Your task to perform on an android device: change the upload size in google photos Image 0: 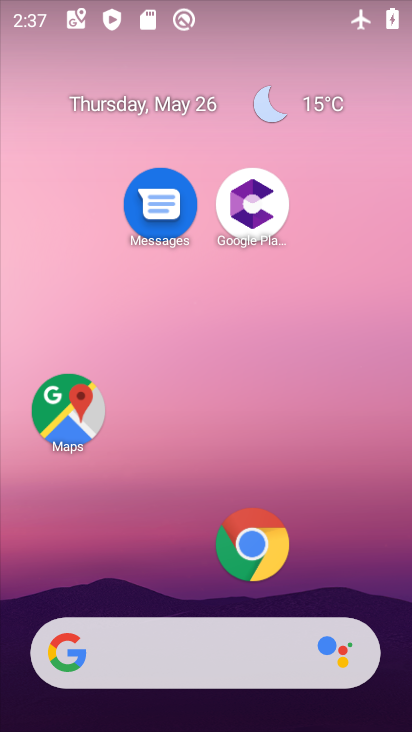
Step 0: drag from (156, 585) to (395, 45)
Your task to perform on an android device: change the upload size in google photos Image 1: 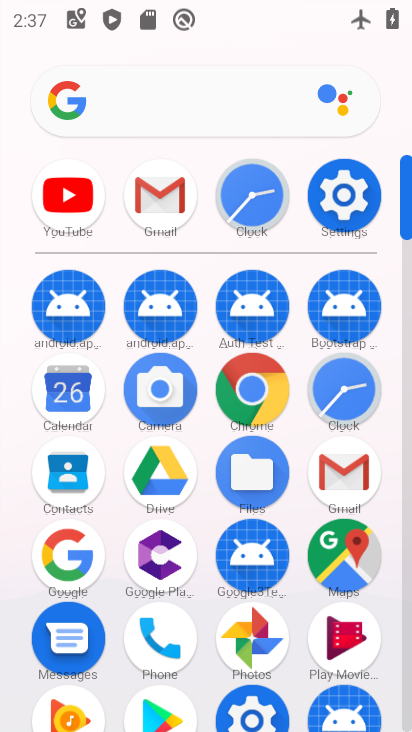
Step 1: click (224, 639)
Your task to perform on an android device: change the upload size in google photos Image 2: 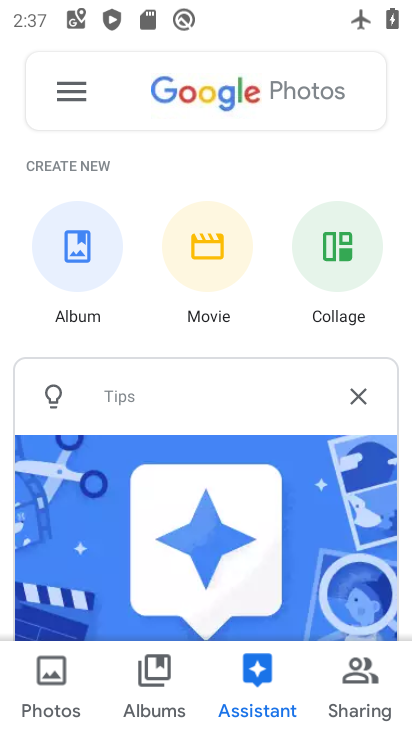
Step 2: click (59, 100)
Your task to perform on an android device: change the upload size in google photos Image 3: 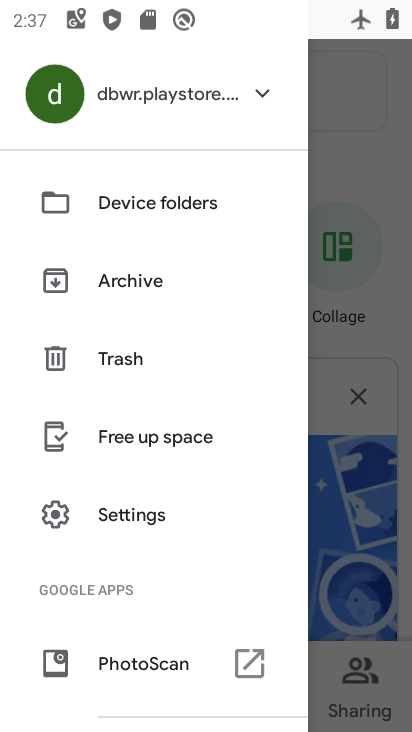
Step 3: click (121, 523)
Your task to perform on an android device: change the upload size in google photos Image 4: 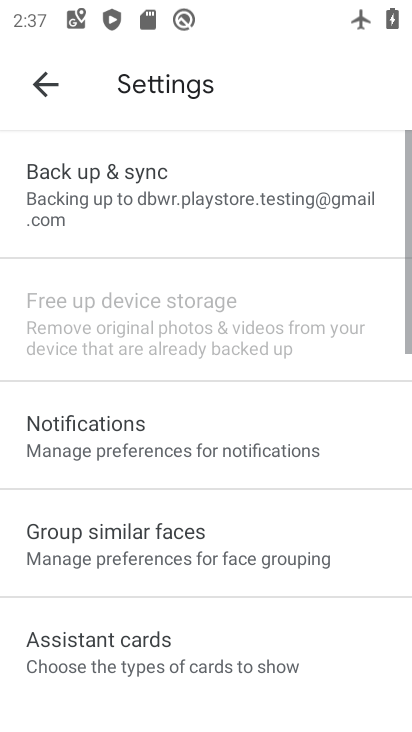
Step 4: click (121, 523)
Your task to perform on an android device: change the upload size in google photos Image 5: 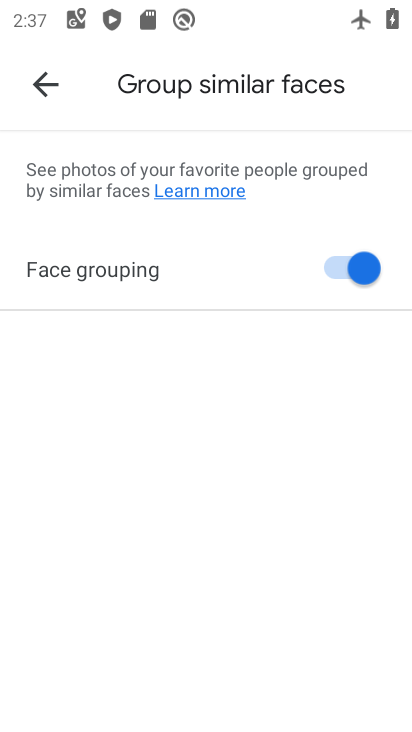
Step 5: click (41, 67)
Your task to perform on an android device: change the upload size in google photos Image 6: 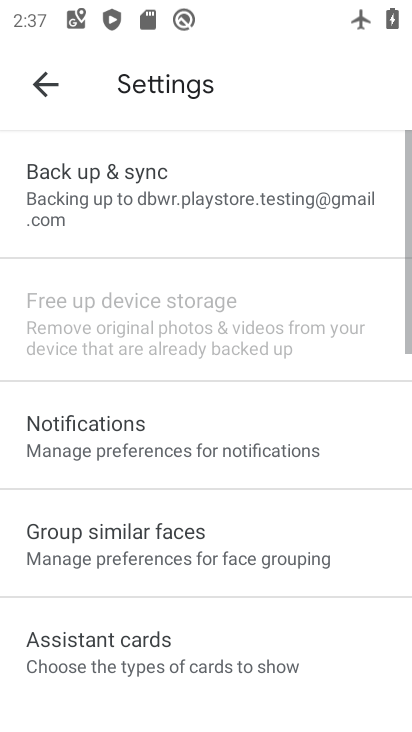
Step 6: click (179, 219)
Your task to perform on an android device: change the upload size in google photos Image 7: 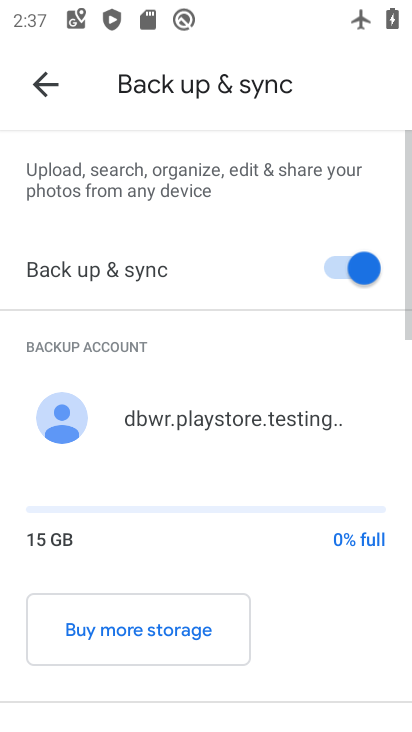
Step 7: drag from (95, 581) to (147, 221)
Your task to perform on an android device: change the upload size in google photos Image 8: 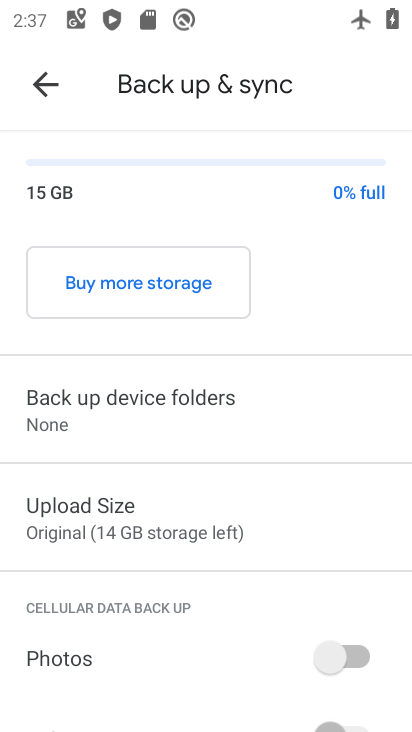
Step 8: click (125, 514)
Your task to perform on an android device: change the upload size in google photos Image 9: 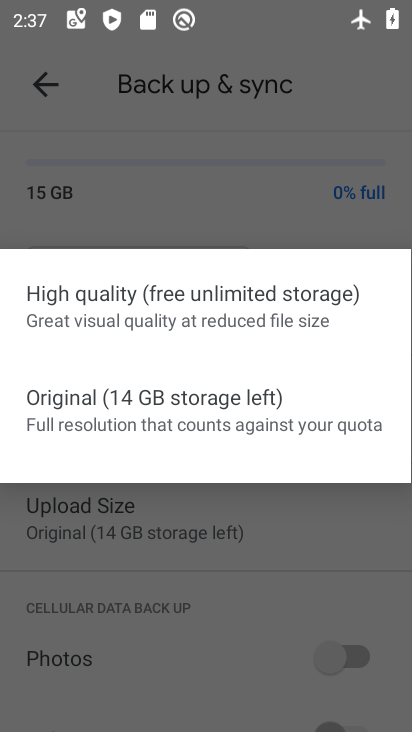
Step 9: click (136, 305)
Your task to perform on an android device: change the upload size in google photos Image 10: 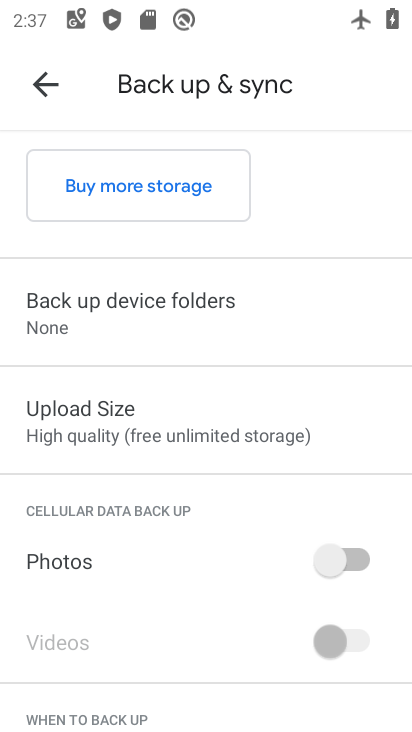
Step 10: task complete